Your task to perform on an android device: Go to Wikipedia Image 0: 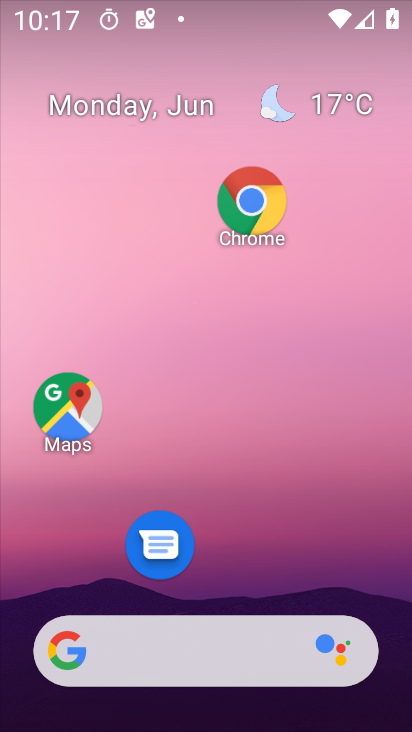
Step 0: click (263, 197)
Your task to perform on an android device: Go to Wikipedia Image 1: 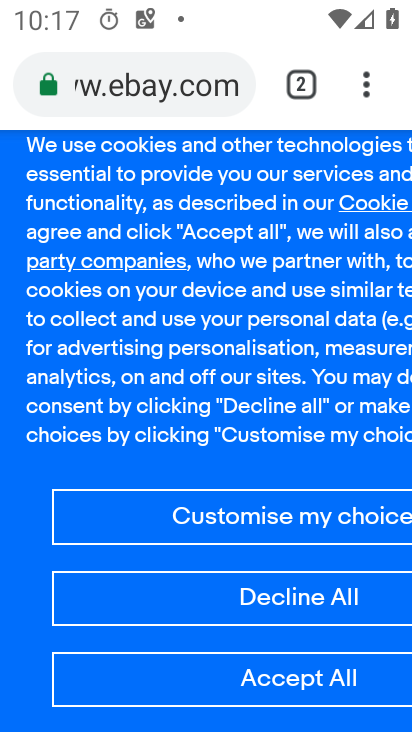
Step 1: click (296, 77)
Your task to perform on an android device: Go to Wikipedia Image 2: 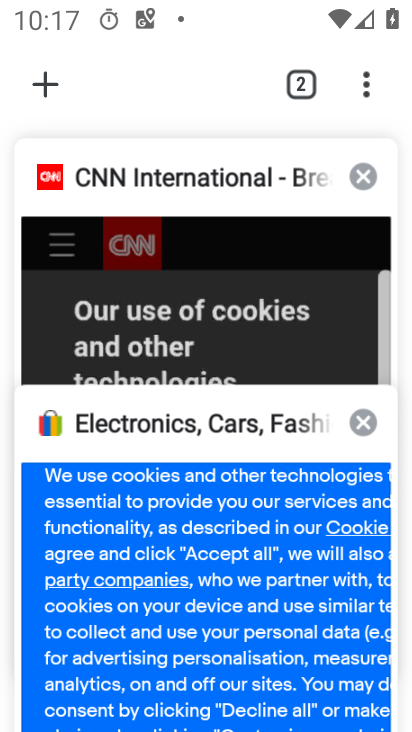
Step 2: click (46, 79)
Your task to perform on an android device: Go to Wikipedia Image 3: 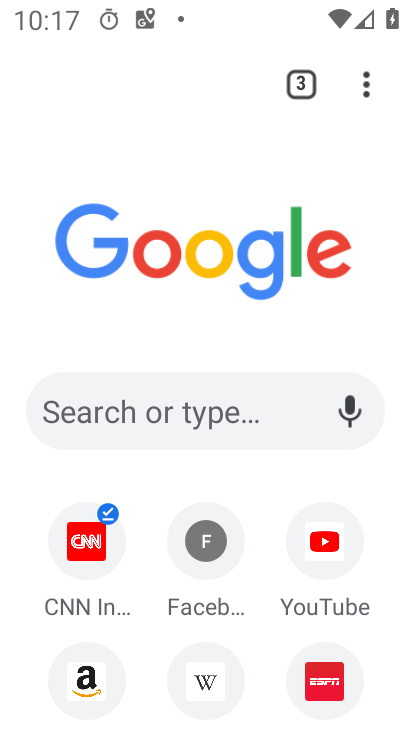
Step 3: click (202, 682)
Your task to perform on an android device: Go to Wikipedia Image 4: 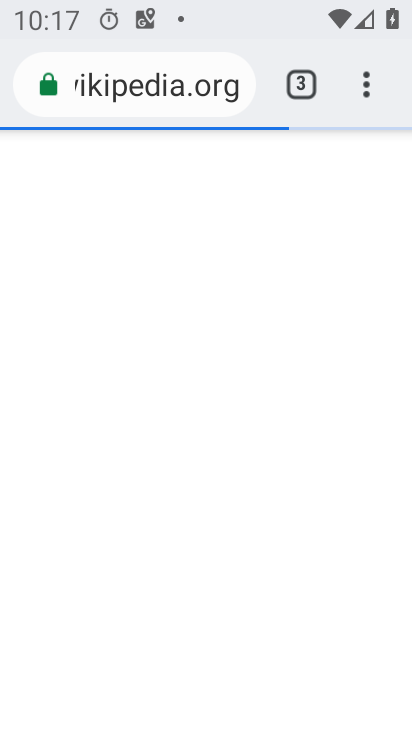
Step 4: task complete